Your task to perform on an android device: set default search engine in the chrome app Image 0: 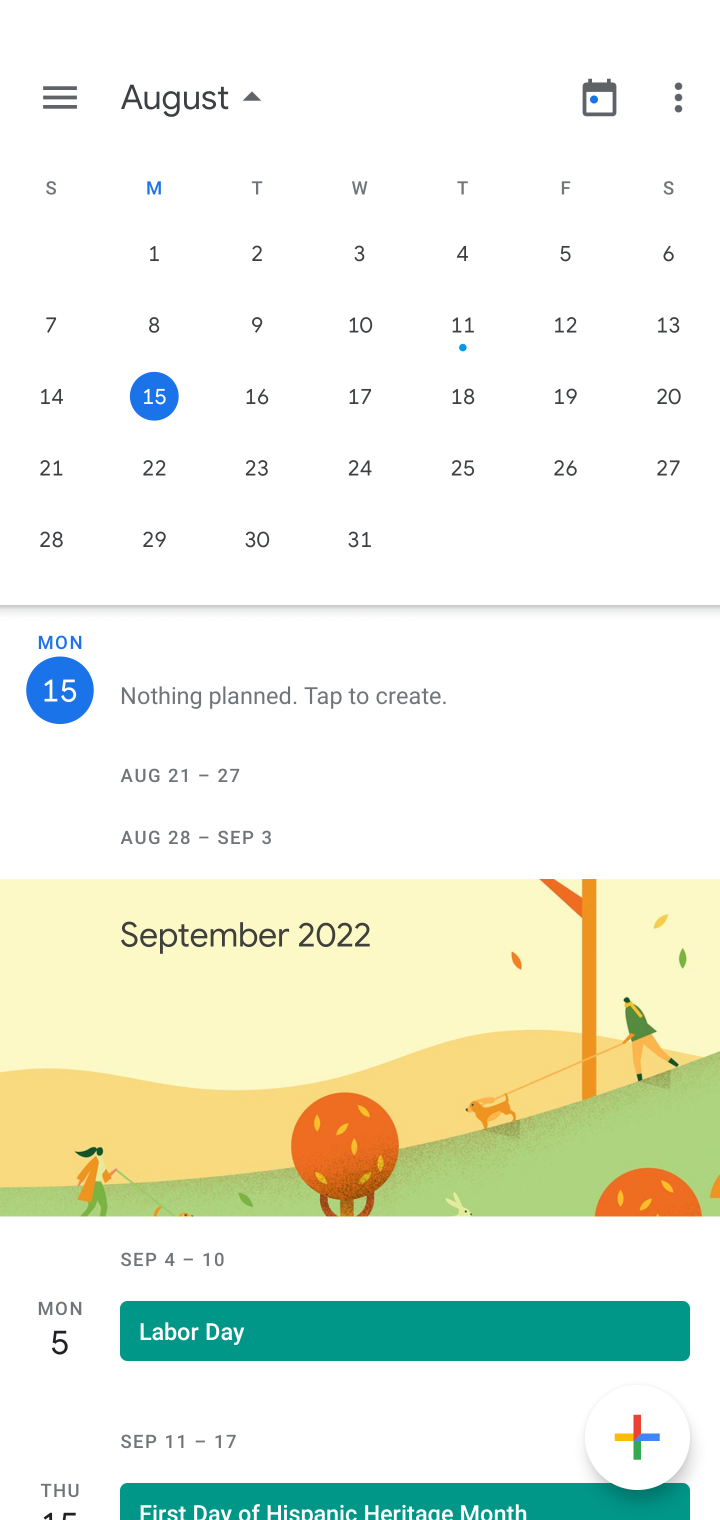
Step 0: press home button
Your task to perform on an android device: set default search engine in the chrome app Image 1: 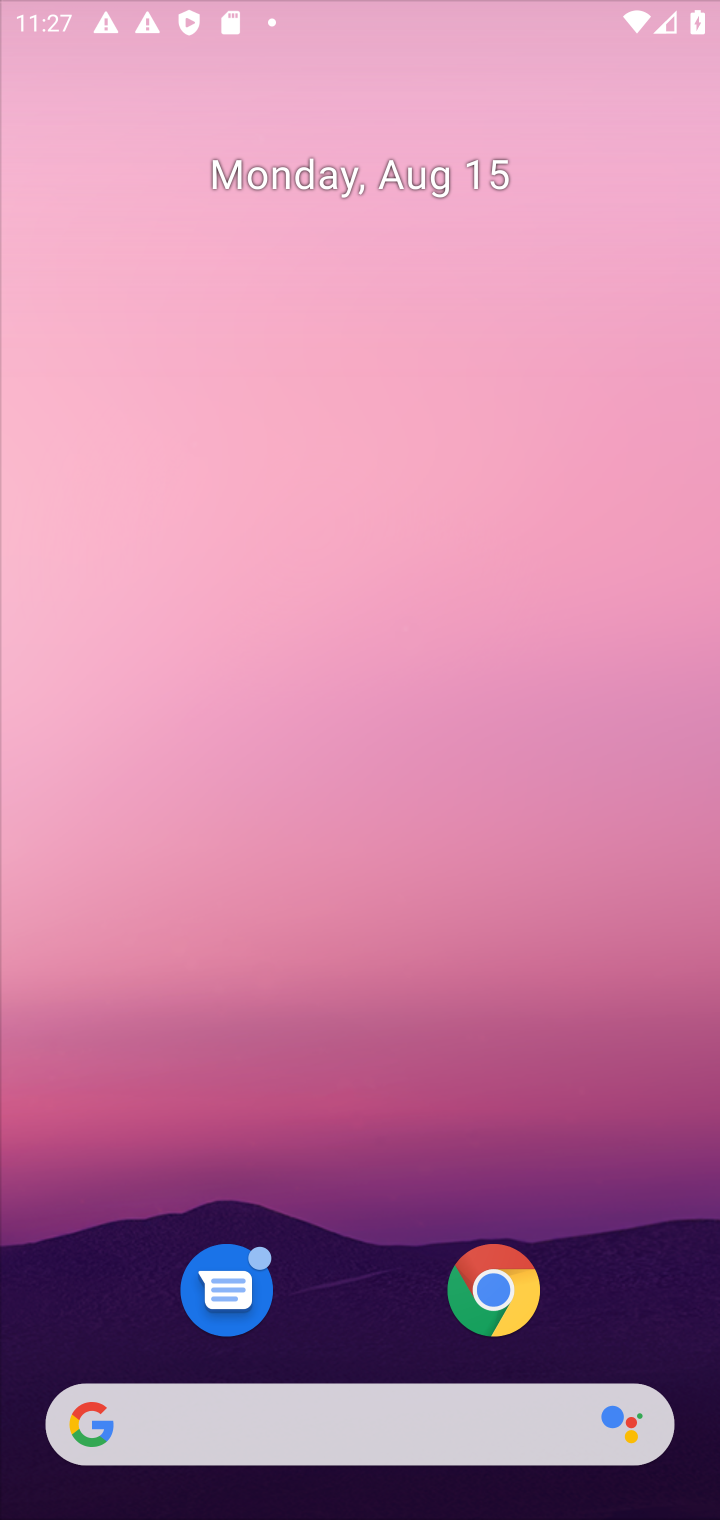
Step 1: press home button
Your task to perform on an android device: set default search engine in the chrome app Image 2: 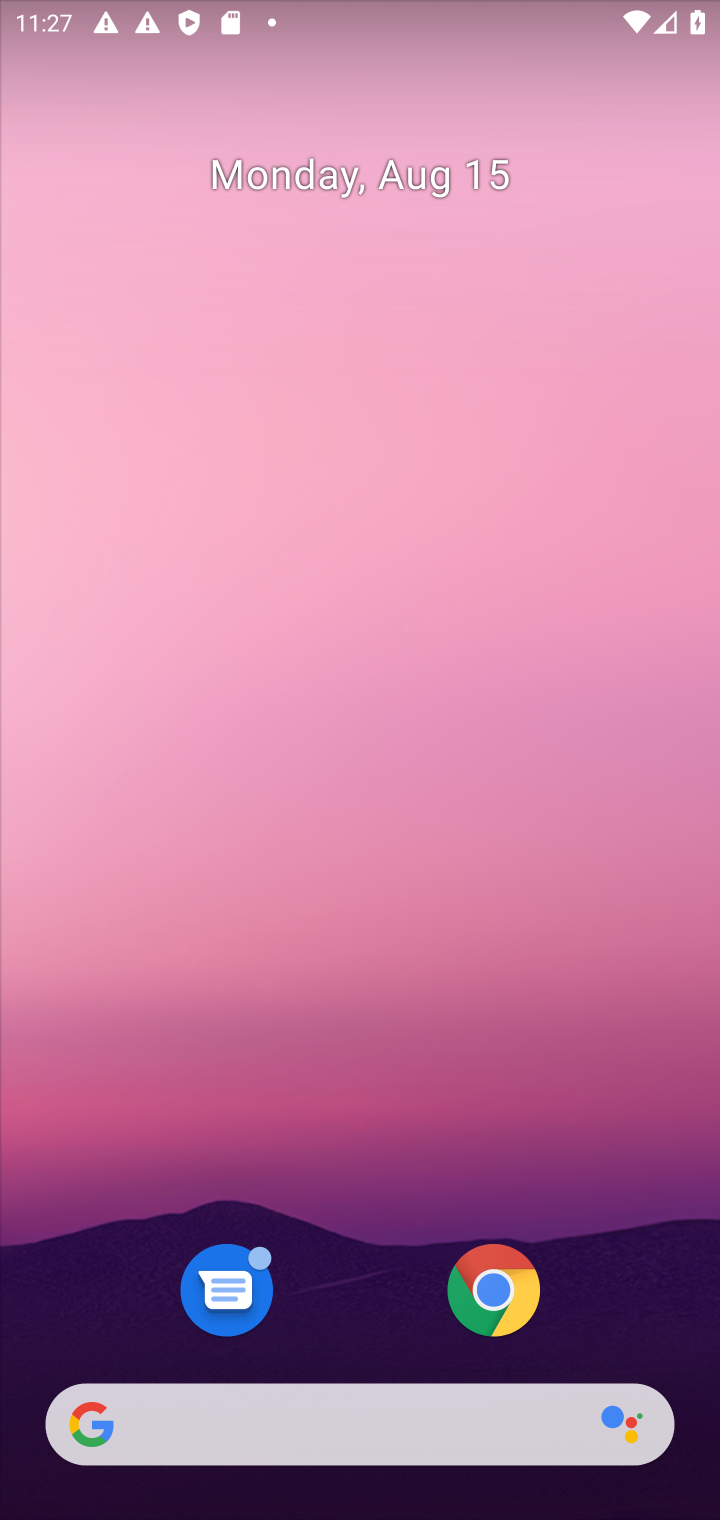
Step 2: click (471, 1326)
Your task to perform on an android device: set default search engine in the chrome app Image 3: 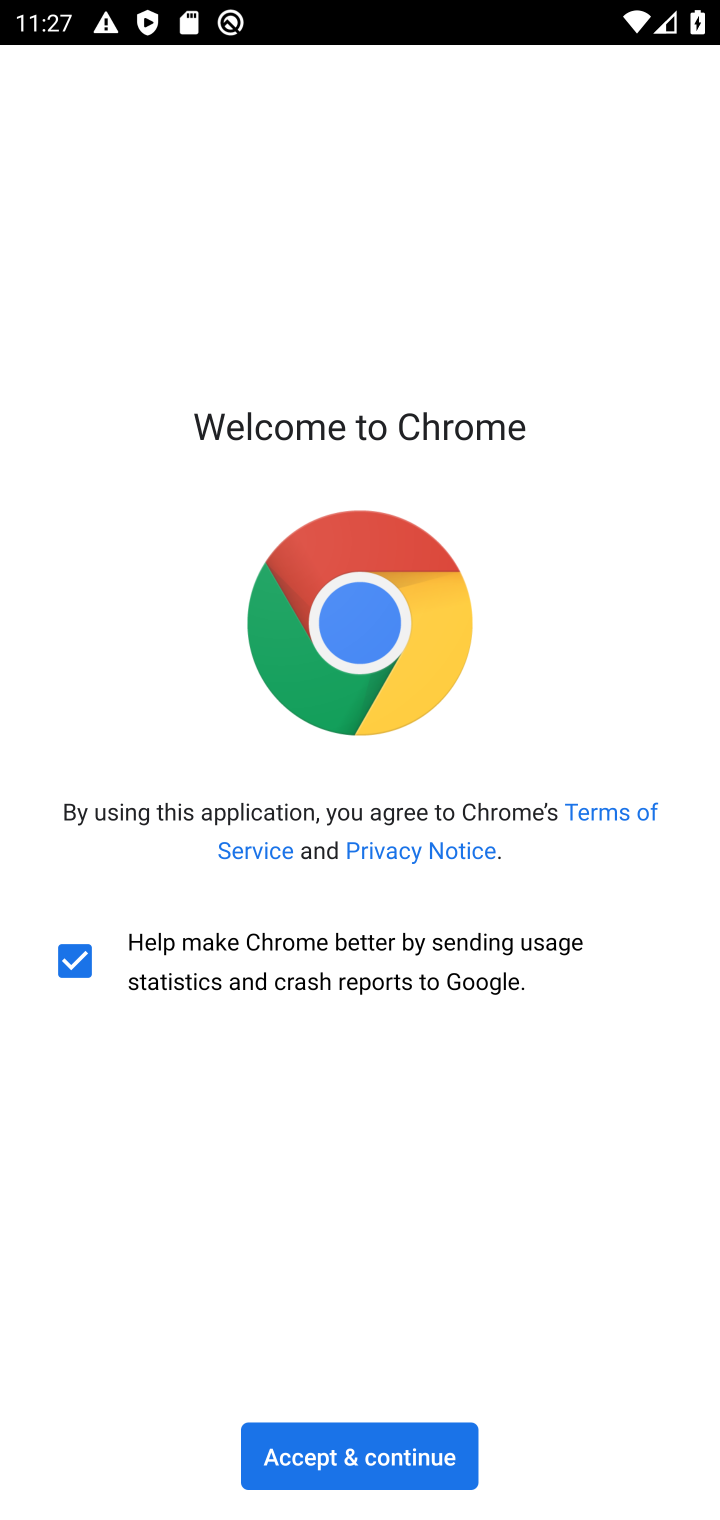
Step 3: click (340, 1451)
Your task to perform on an android device: set default search engine in the chrome app Image 4: 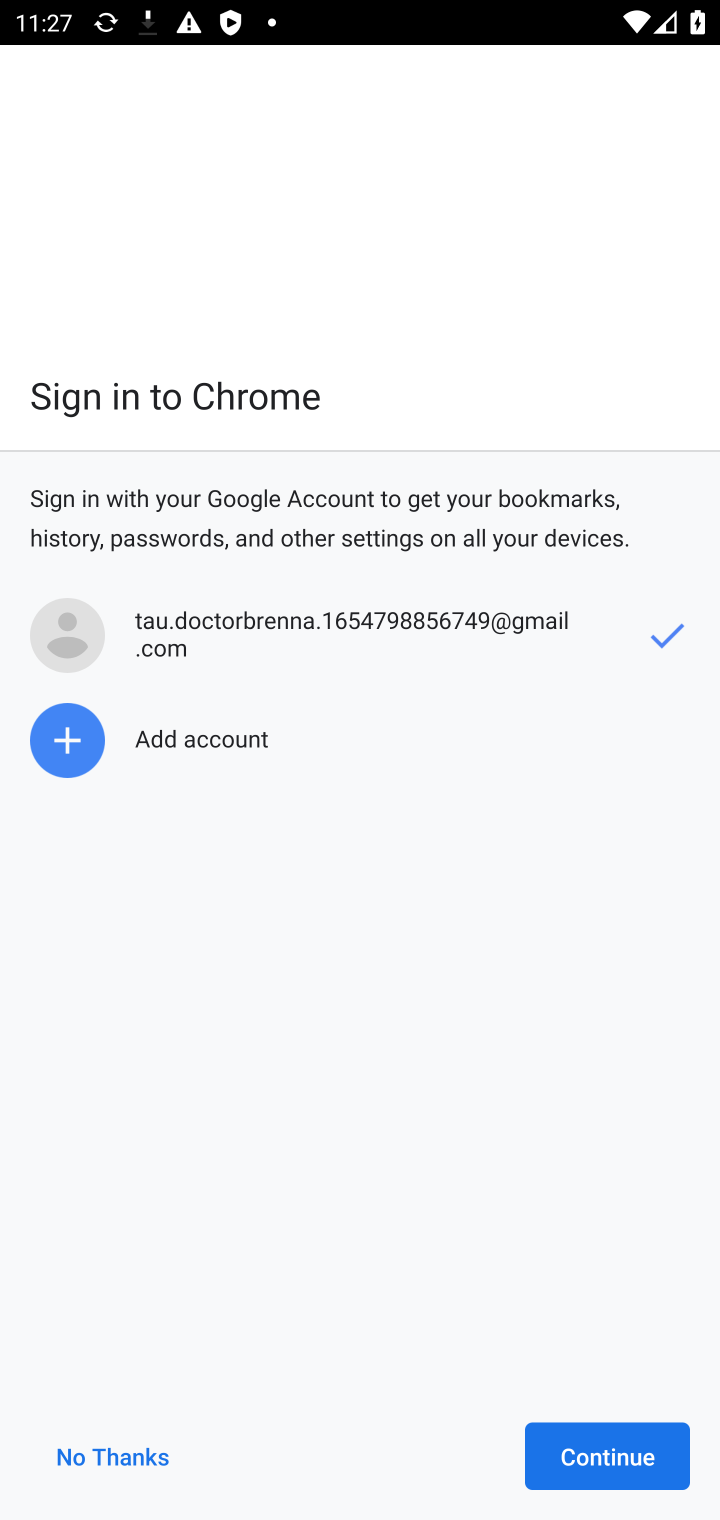
Step 4: click (123, 1451)
Your task to perform on an android device: set default search engine in the chrome app Image 5: 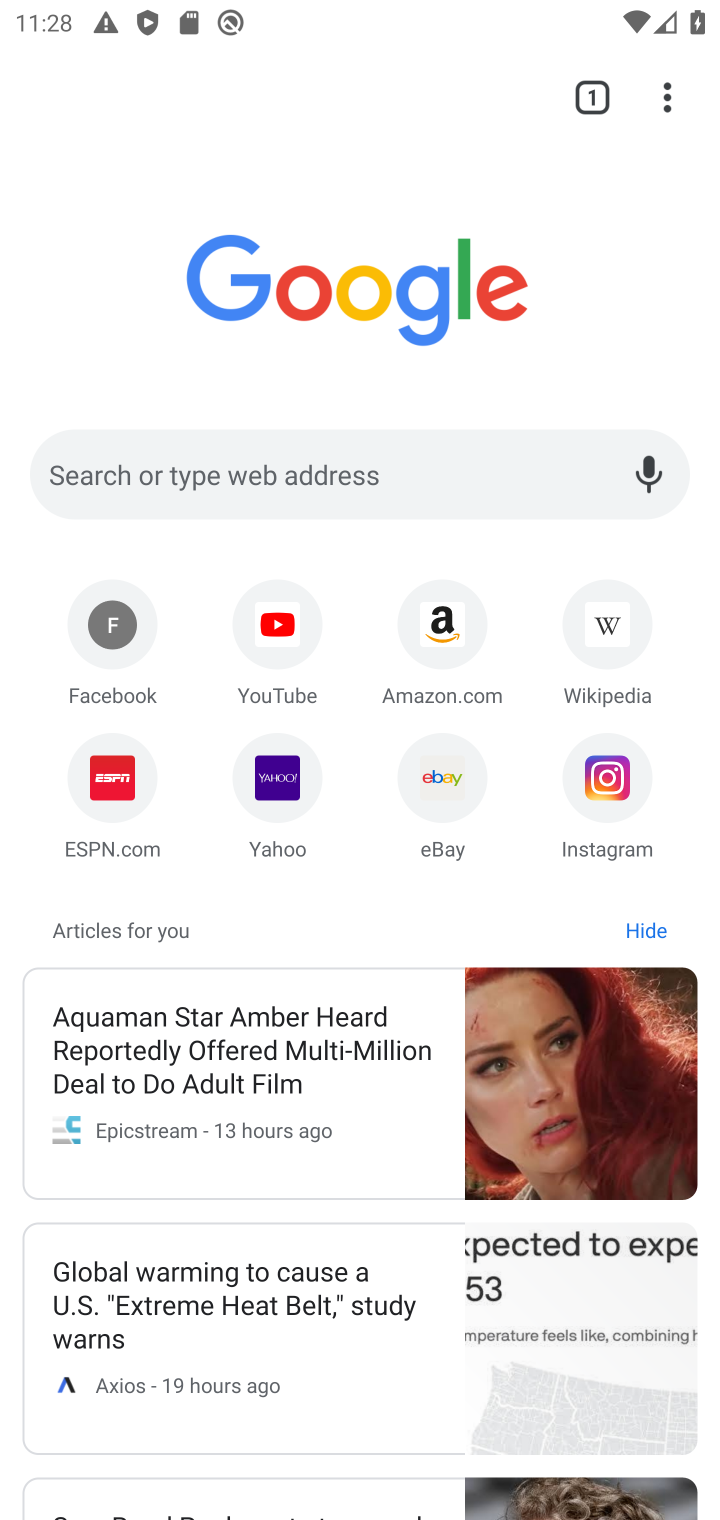
Step 5: click (674, 106)
Your task to perform on an android device: set default search engine in the chrome app Image 6: 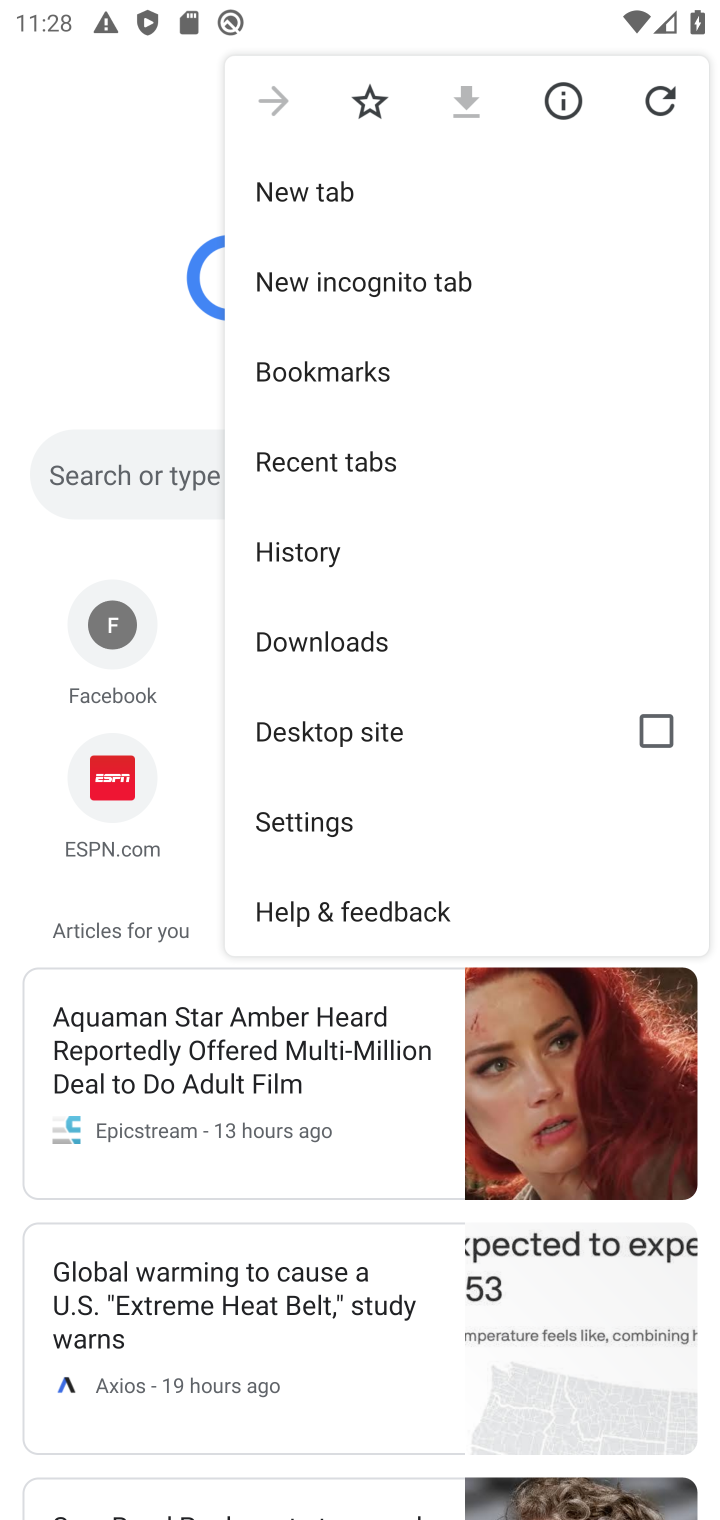
Step 6: click (345, 808)
Your task to perform on an android device: set default search engine in the chrome app Image 7: 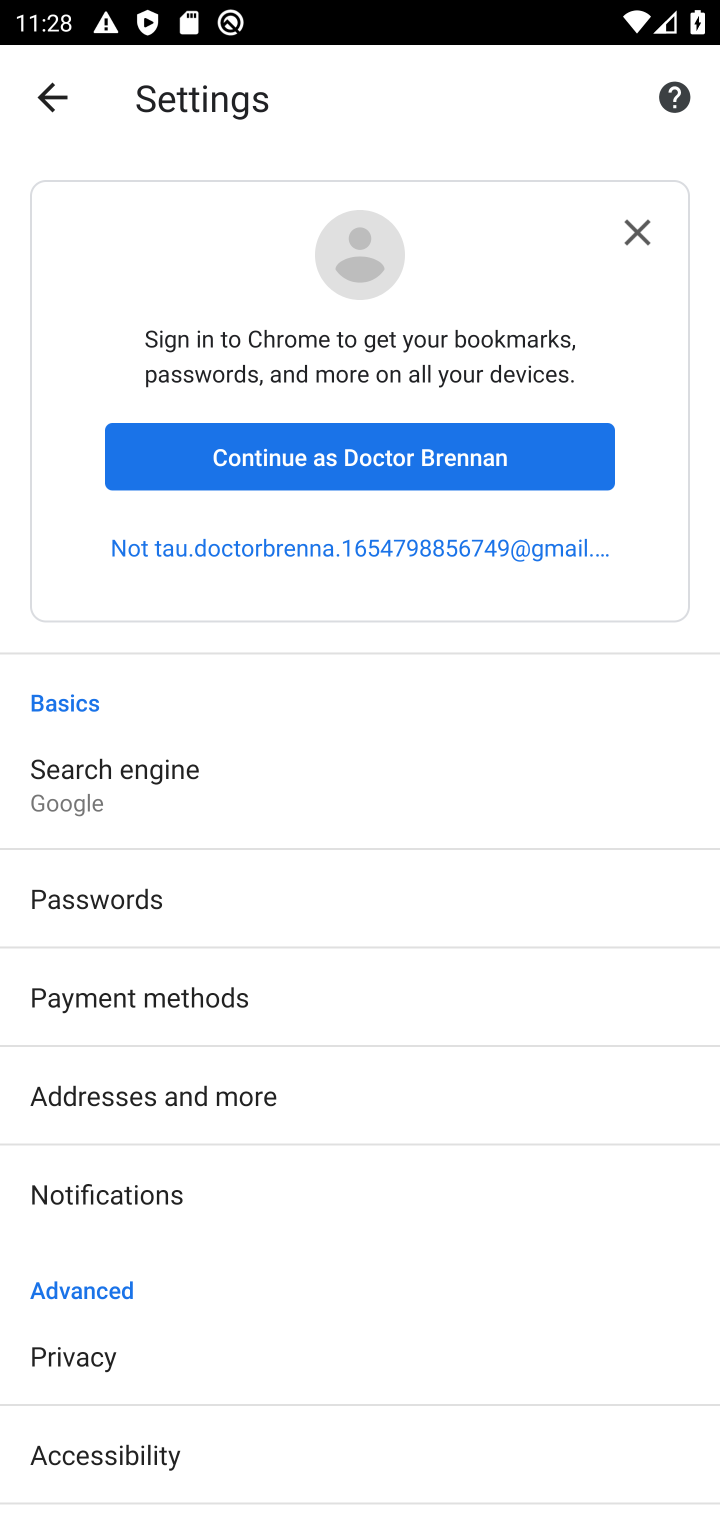
Step 7: click (638, 231)
Your task to perform on an android device: set default search engine in the chrome app Image 8: 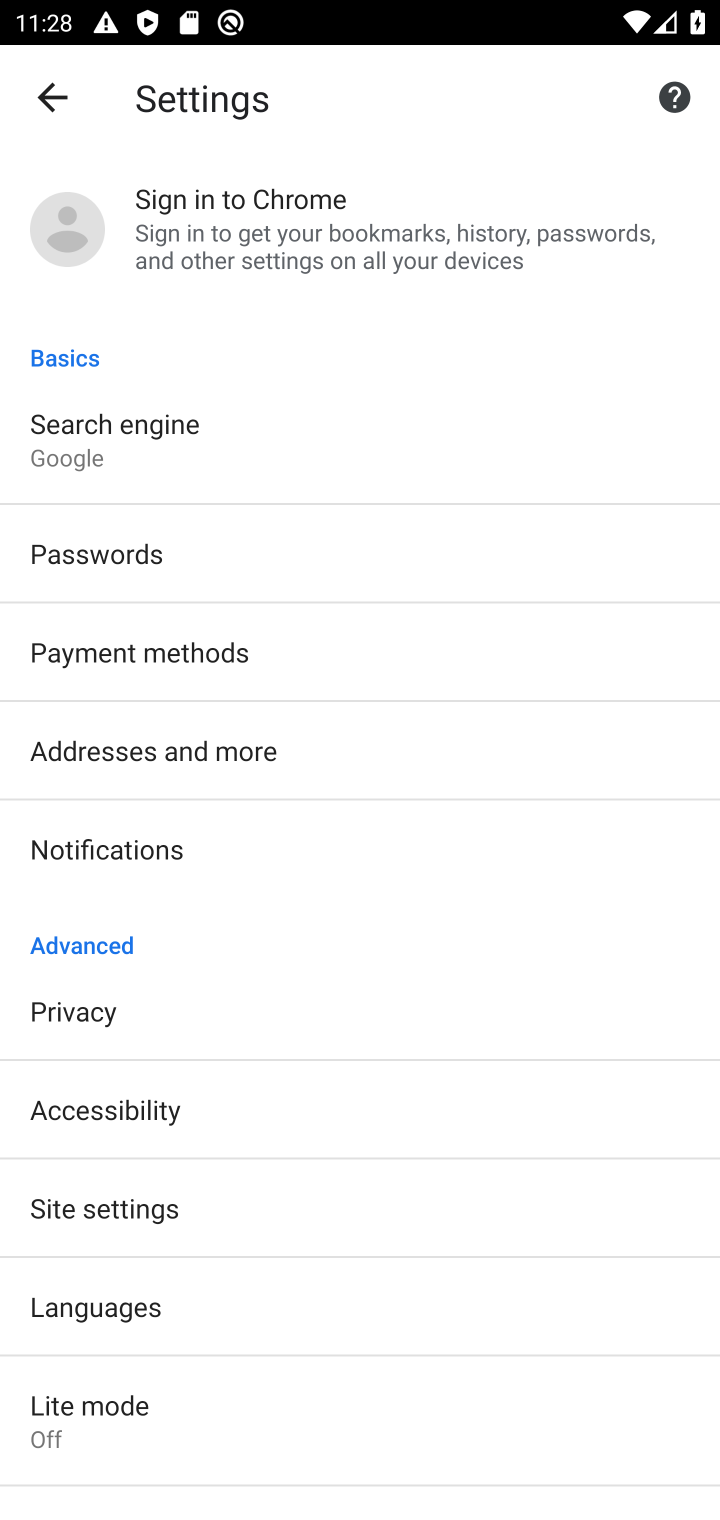
Step 8: task complete